Your task to perform on an android device: turn off airplane mode Image 0: 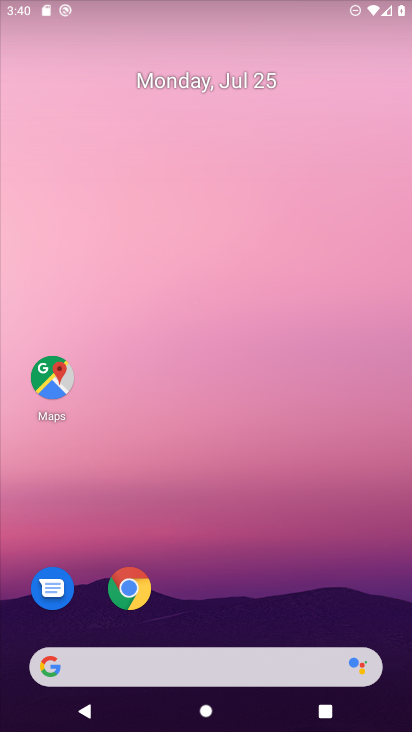
Step 0: drag from (266, 635) to (266, 389)
Your task to perform on an android device: turn off airplane mode Image 1: 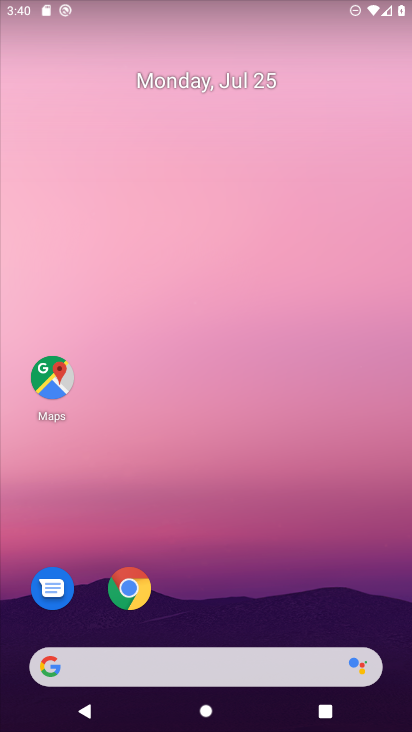
Step 1: drag from (263, 665) to (195, 144)
Your task to perform on an android device: turn off airplane mode Image 2: 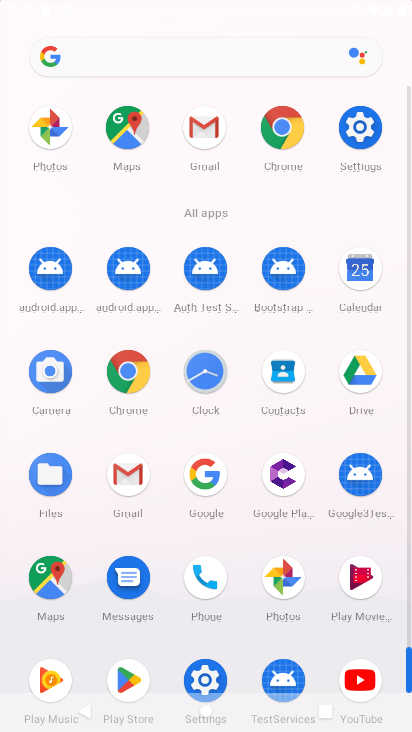
Step 2: drag from (219, 515) to (219, 321)
Your task to perform on an android device: turn off airplane mode Image 3: 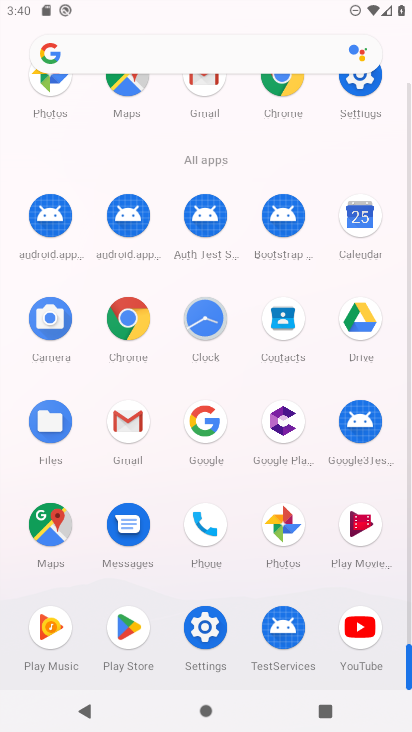
Step 3: click (199, 623)
Your task to perform on an android device: turn off airplane mode Image 4: 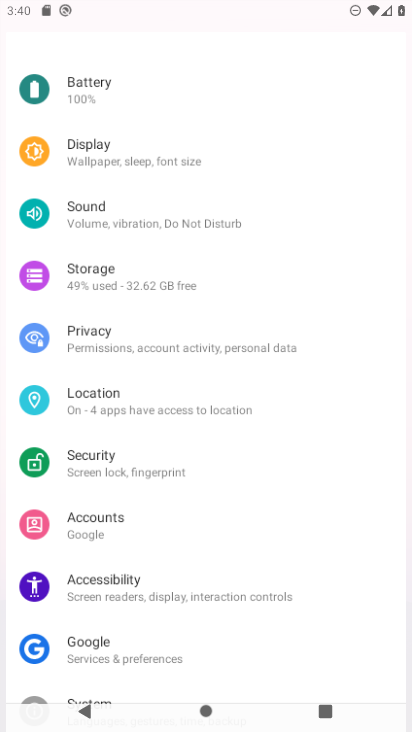
Step 4: click (198, 624)
Your task to perform on an android device: turn off airplane mode Image 5: 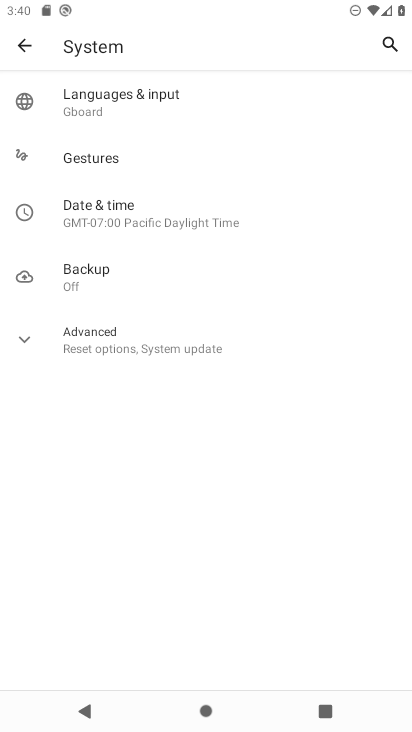
Step 5: drag from (208, 537) to (179, 109)
Your task to perform on an android device: turn off airplane mode Image 6: 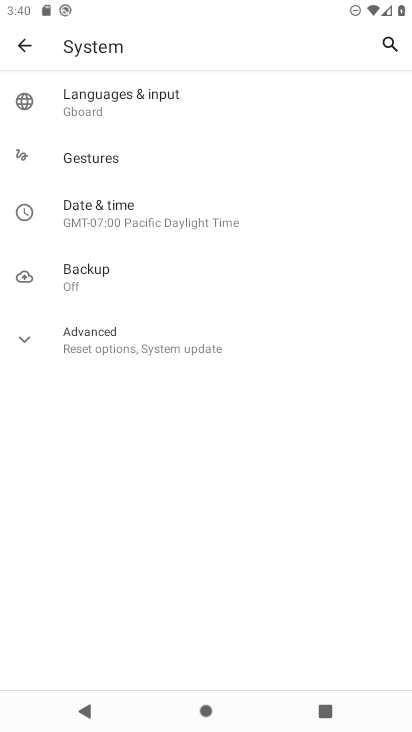
Step 6: click (22, 44)
Your task to perform on an android device: turn off airplane mode Image 7: 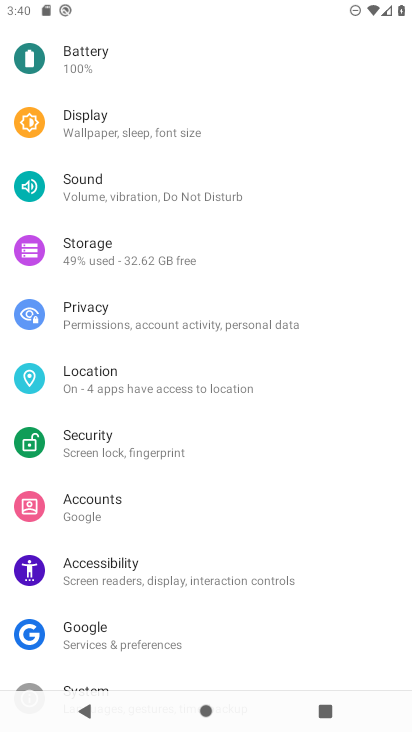
Step 7: click (101, 619)
Your task to perform on an android device: turn off airplane mode Image 8: 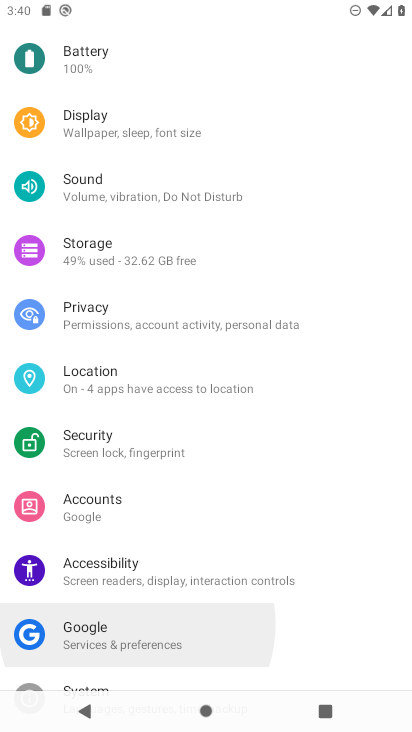
Step 8: drag from (129, 157) to (215, 544)
Your task to perform on an android device: turn off airplane mode Image 9: 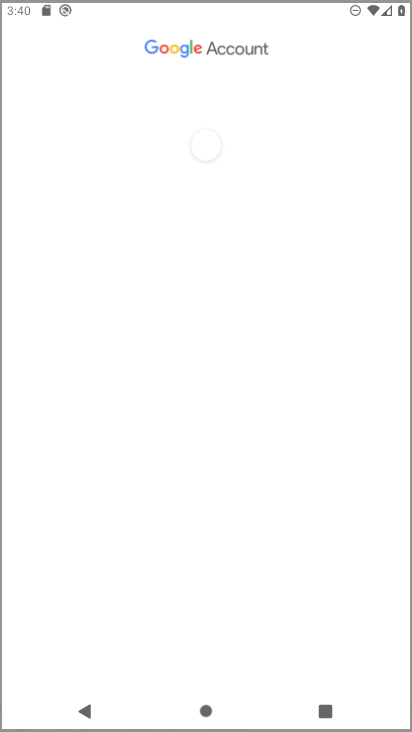
Step 9: click (267, 624)
Your task to perform on an android device: turn off airplane mode Image 10: 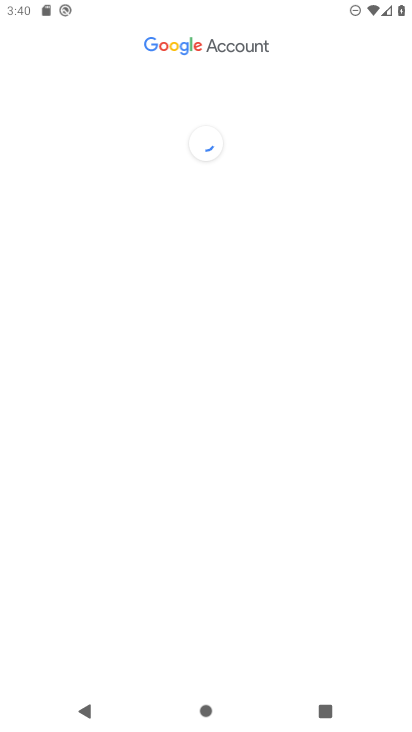
Step 10: drag from (159, 93) to (155, 407)
Your task to perform on an android device: turn off airplane mode Image 11: 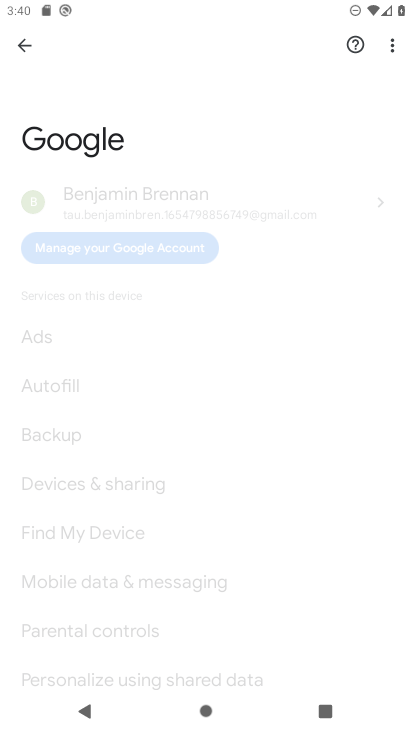
Step 11: press back button
Your task to perform on an android device: turn off airplane mode Image 12: 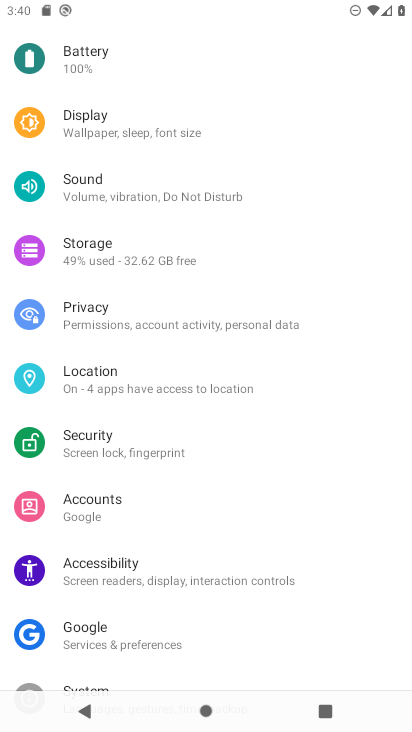
Step 12: drag from (86, 94) to (113, 423)
Your task to perform on an android device: turn off airplane mode Image 13: 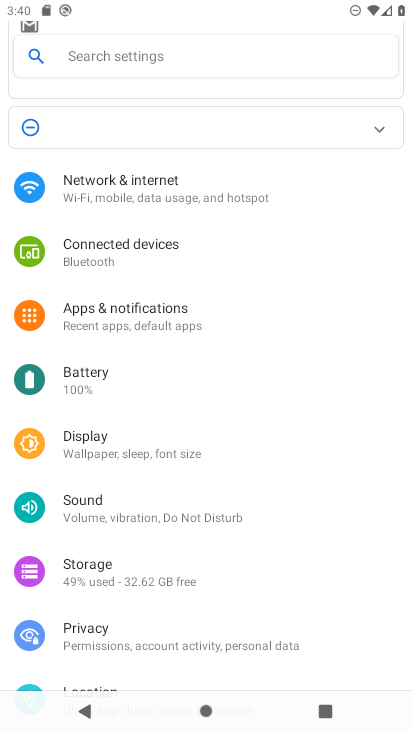
Step 13: drag from (144, 75) to (140, 449)
Your task to perform on an android device: turn off airplane mode Image 14: 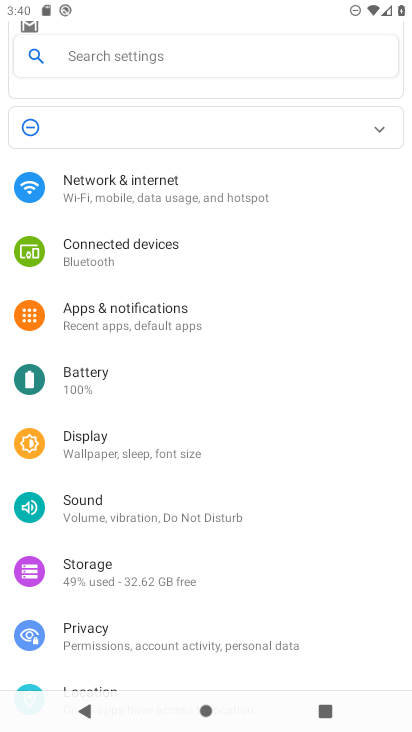
Step 14: click (142, 178)
Your task to perform on an android device: turn off airplane mode Image 15: 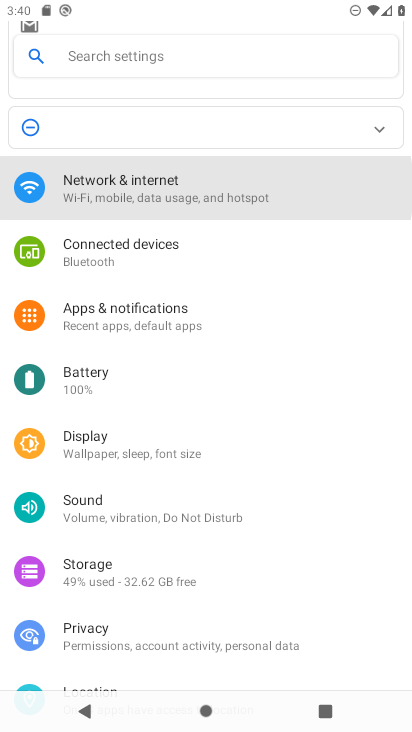
Step 15: click (145, 189)
Your task to perform on an android device: turn off airplane mode Image 16: 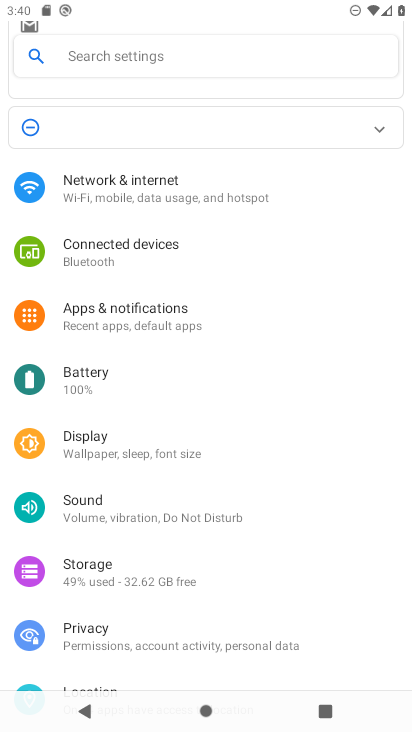
Step 16: click (146, 191)
Your task to perform on an android device: turn off airplane mode Image 17: 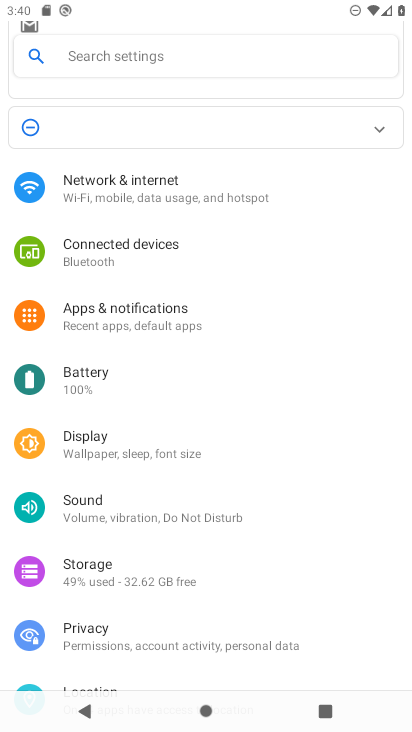
Step 17: click (147, 189)
Your task to perform on an android device: turn off airplane mode Image 18: 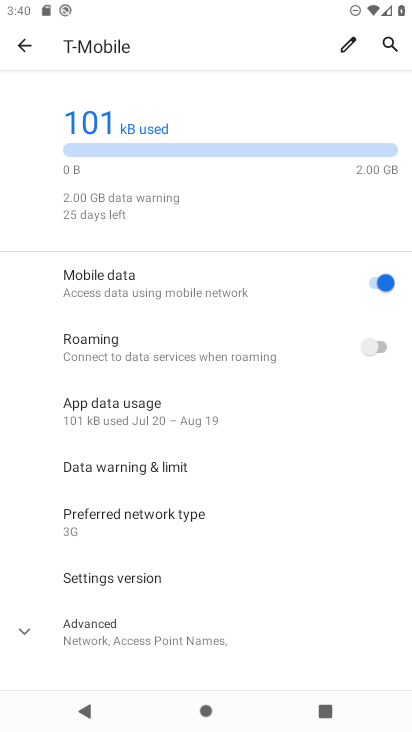
Step 18: click (34, 49)
Your task to perform on an android device: turn off airplane mode Image 19: 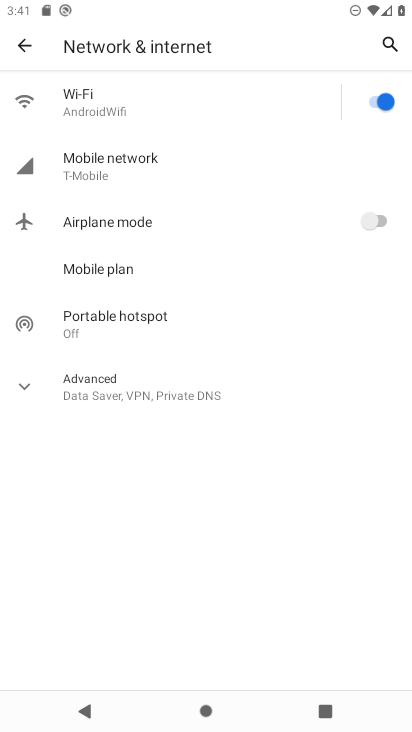
Step 19: task complete